Your task to perform on an android device: toggle translation in the chrome app Image 0: 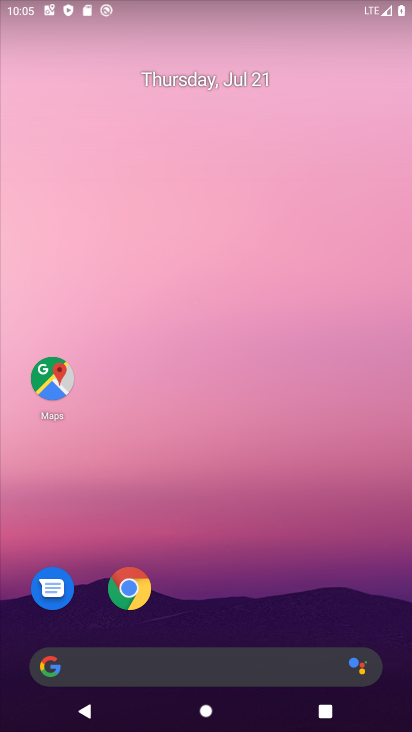
Step 0: click (124, 587)
Your task to perform on an android device: toggle translation in the chrome app Image 1: 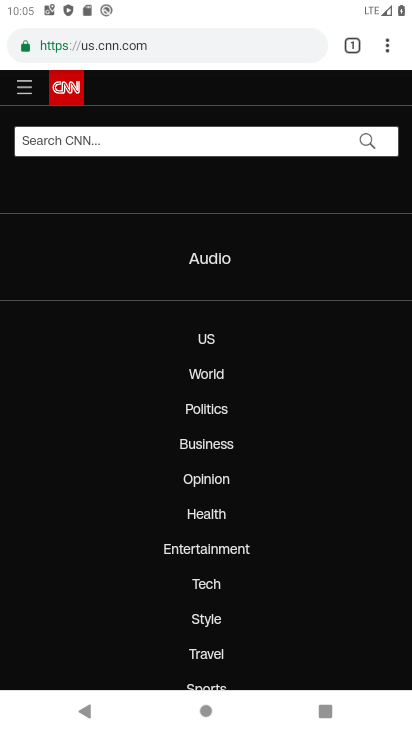
Step 1: click (387, 40)
Your task to perform on an android device: toggle translation in the chrome app Image 2: 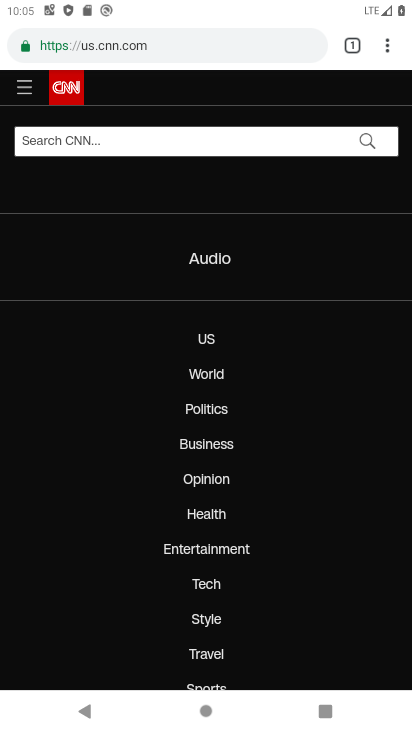
Step 2: click (385, 43)
Your task to perform on an android device: toggle translation in the chrome app Image 3: 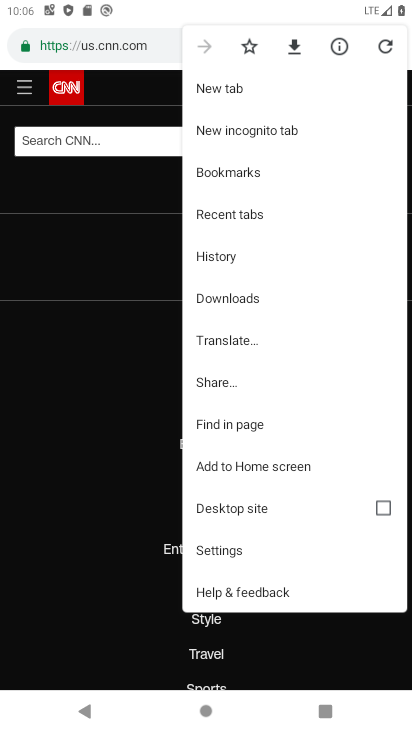
Step 3: click (37, 535)
Your task to perform on an android device: toggle translation in the chrome app Image 4: 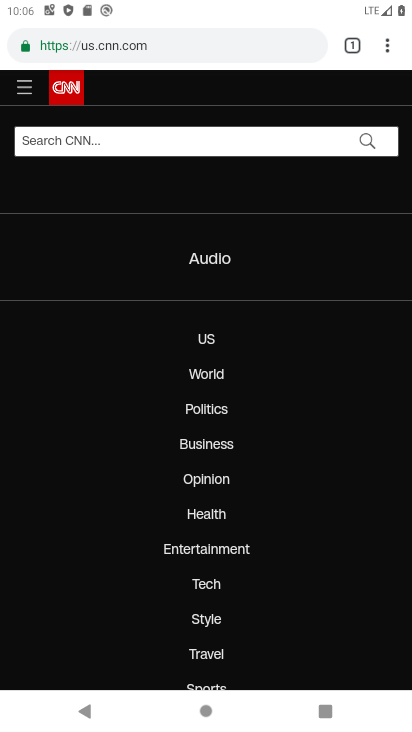
Step 4: click (388, 51)
Your task to perform on an android device: toggle translation in the chrome app Image 5: 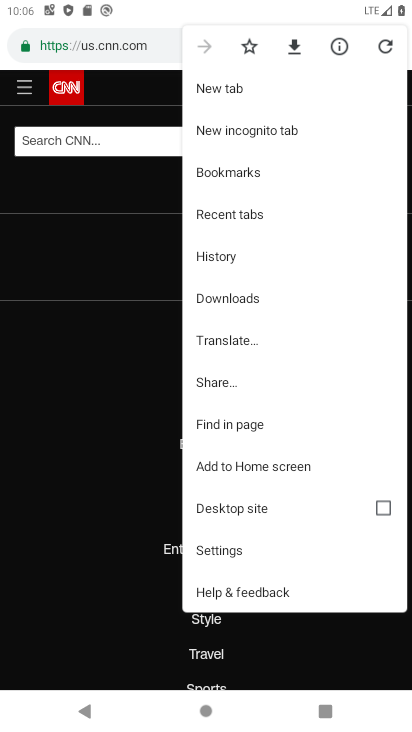
Step 5: click (223, 555)
Your task to perform on an android device: toggle translation in the chrome app Image 6: 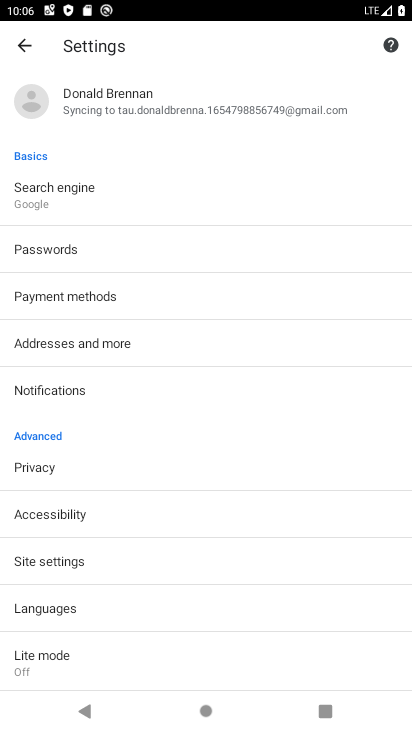
Step 6: click (54, 607)
Your task to perform on an android device: toggle translation in the chrome app Image 7: 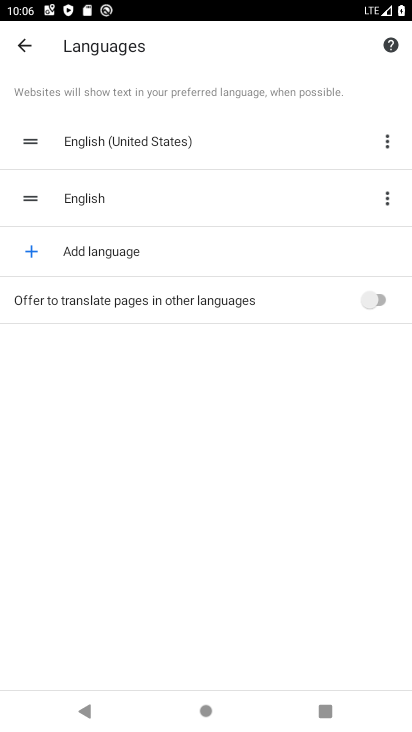
Step 7: click (378, 300)
Your task to perform on an android device: toggle translation in the chrome app Image 8: 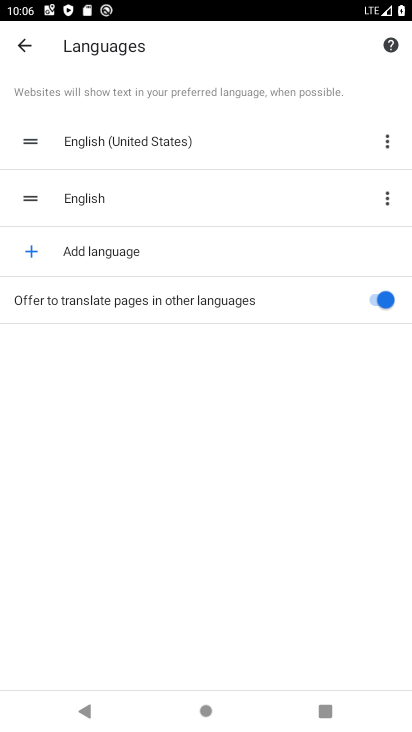
Step 8: task complete